Your task to perform on an android device: clear history in the chrome app Image 0: 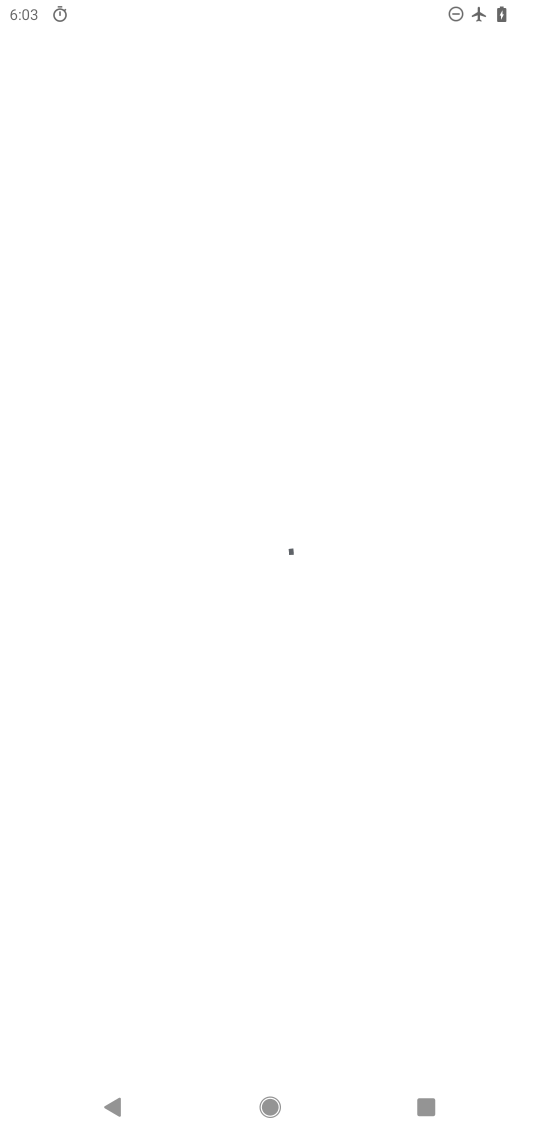
Step 0: press home button
Your task to perform on an android device: clear history in the chrome app Image 1: 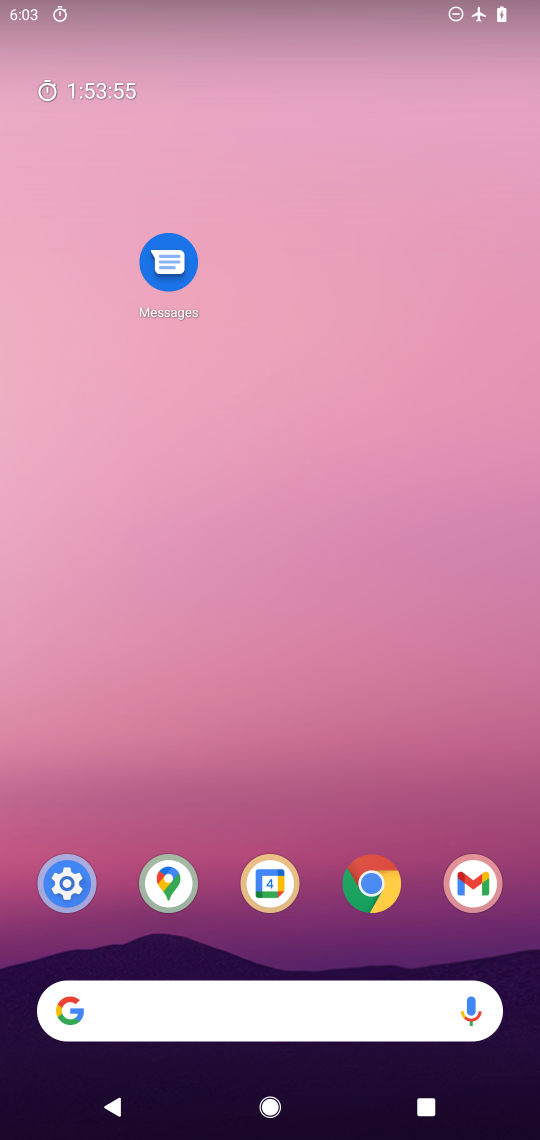
Step 1: drag from (315, 975) to (277, 79)
Your task to perform on an android device: clear history in the chrome app Image 2: 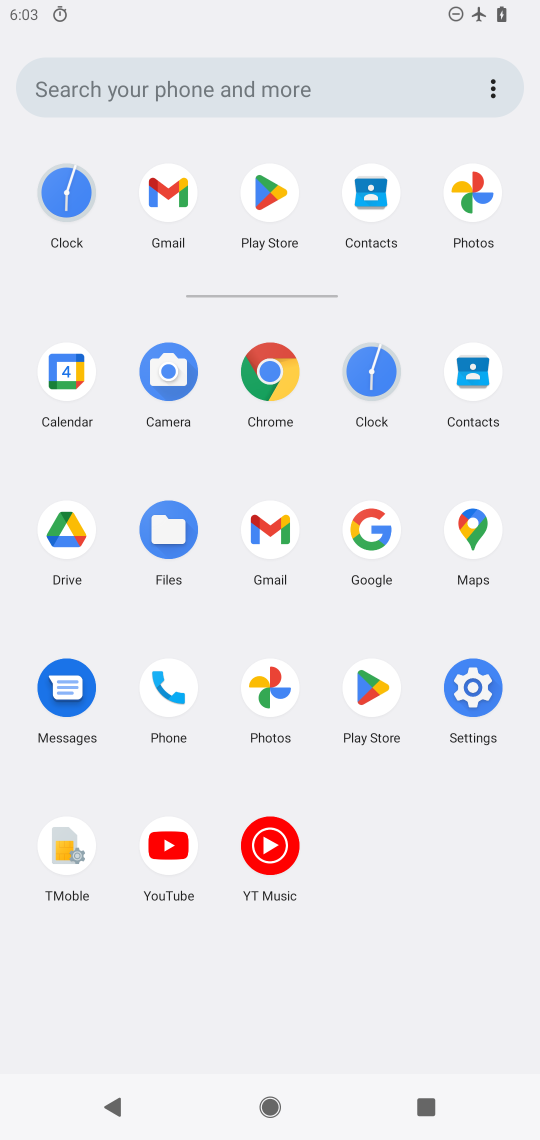
Step 2: click (276, 370)
Your task to perform on an android device: clear history in the chrome app Image 3: 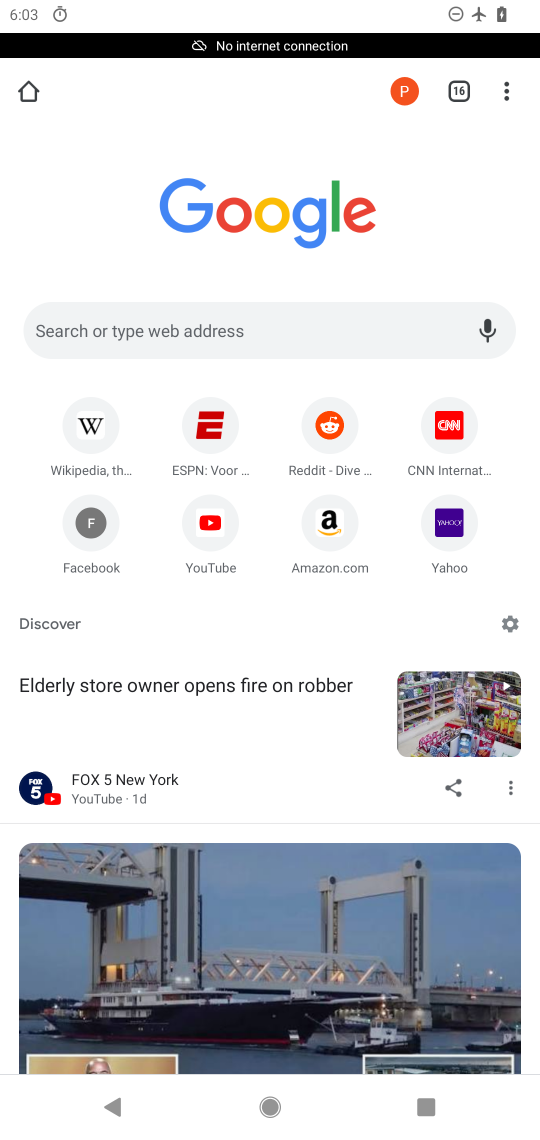
Step 3: click (506, 96)
Your task to perform on an android device: clear history in the chrome app Image 4: 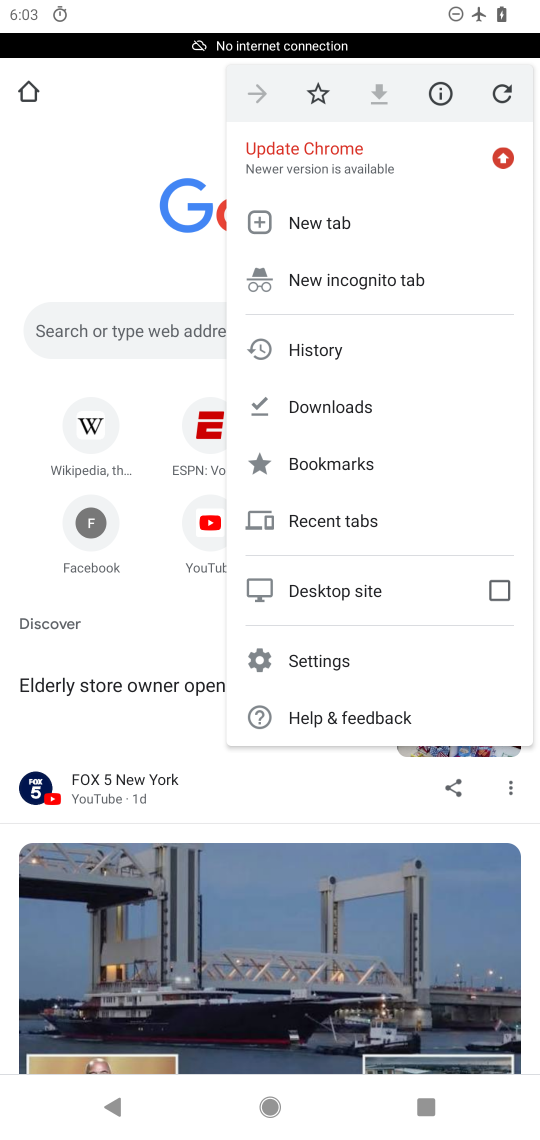
Step 4: click (306, 343)
Your task to perform on an android device: clear history in the chrome app Image 5: 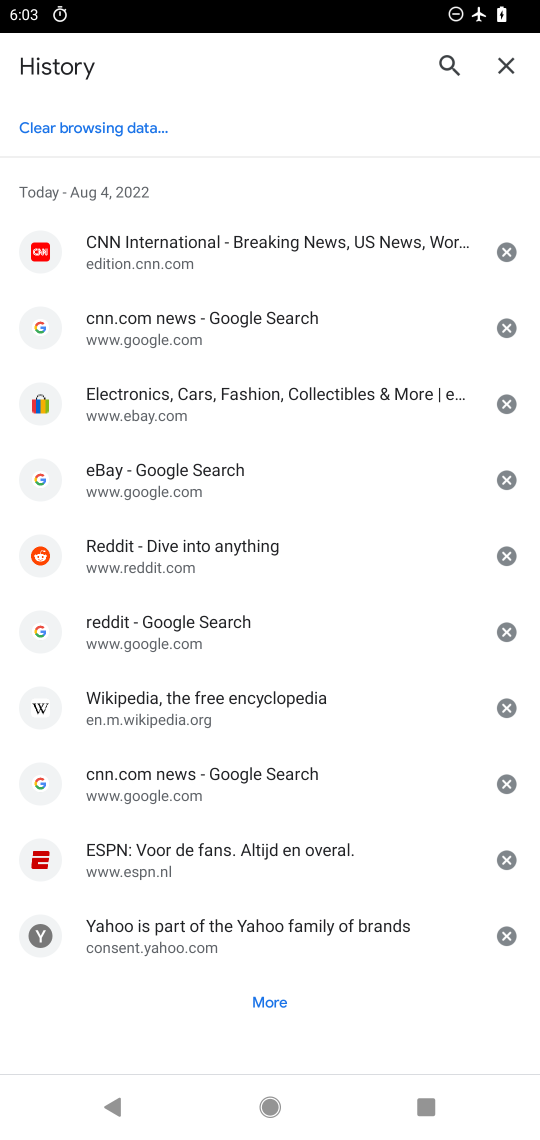
Step 5: click (76, 123)
Your task to perform on an android device: clear history in the chrome app Image 6: 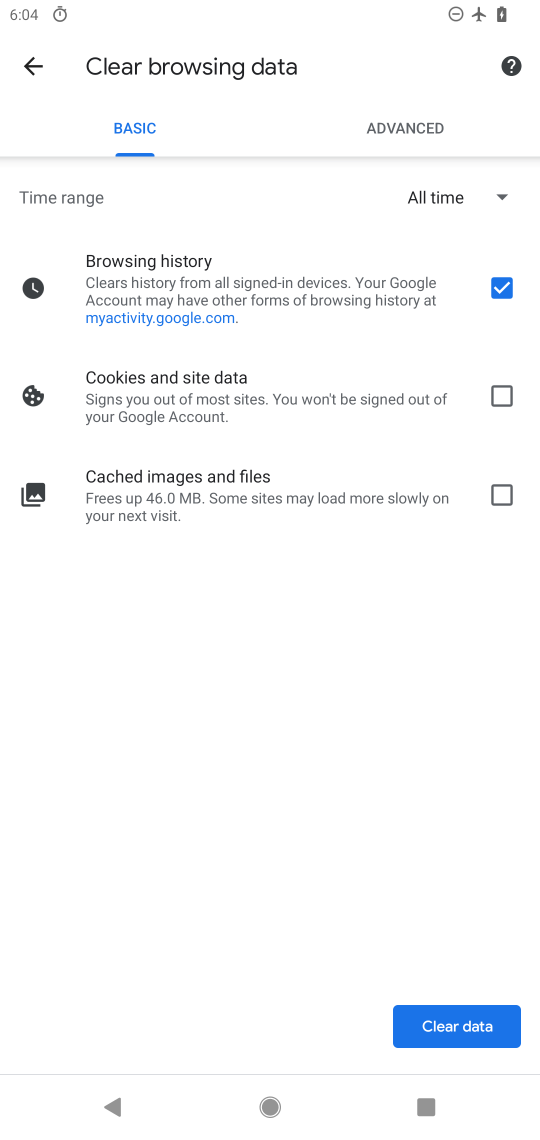
Step 6: click (489, 1021)
Your task to perform on an android device: clear history in the chrome app Image 7: 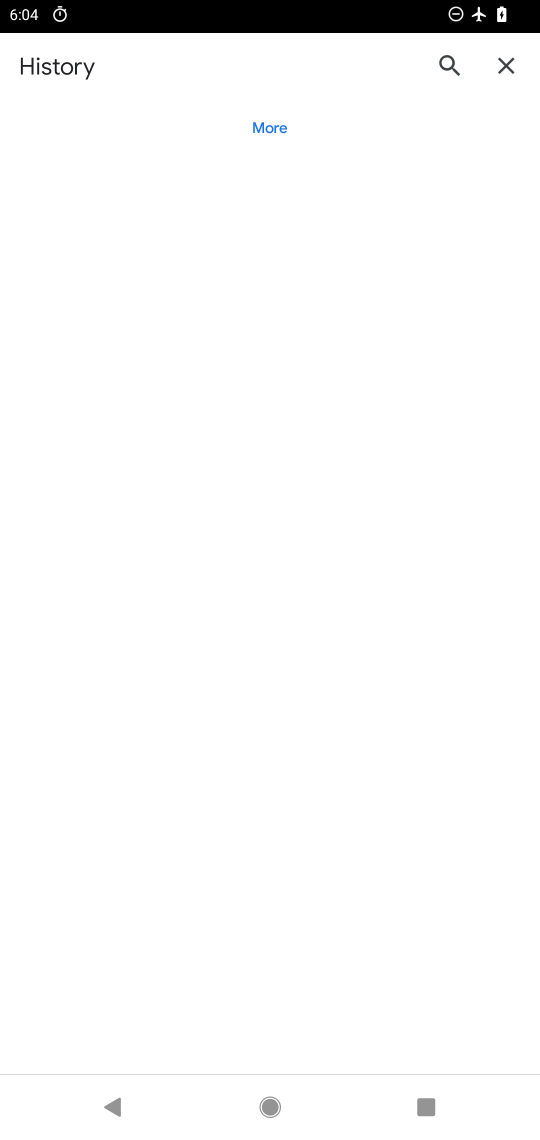
Step 7: task complete